Your task to perform on an android device: Open Yahoo.com Image 0: 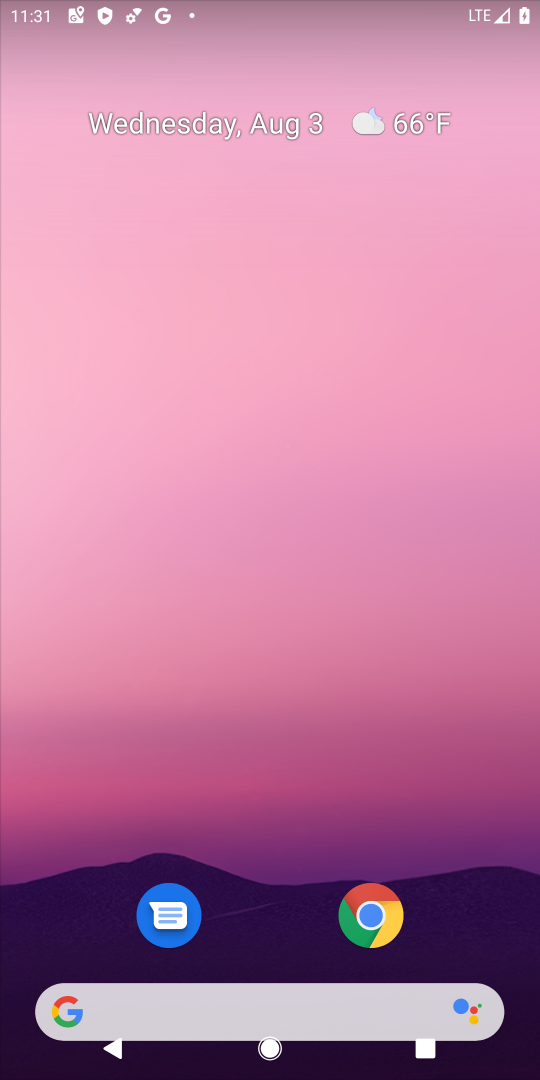
Step 0: press home button
Your task to perform on an android device: Open Yahoo.com Image 1: 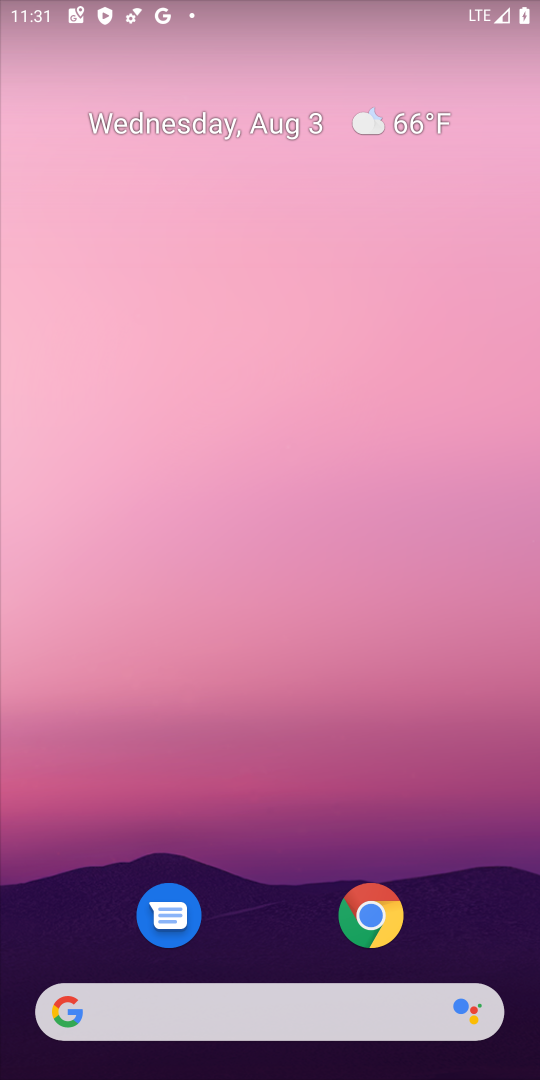
Step 1: click (395, 914)
Your task to perform on an android device: Open Yahoo.com Image 2: 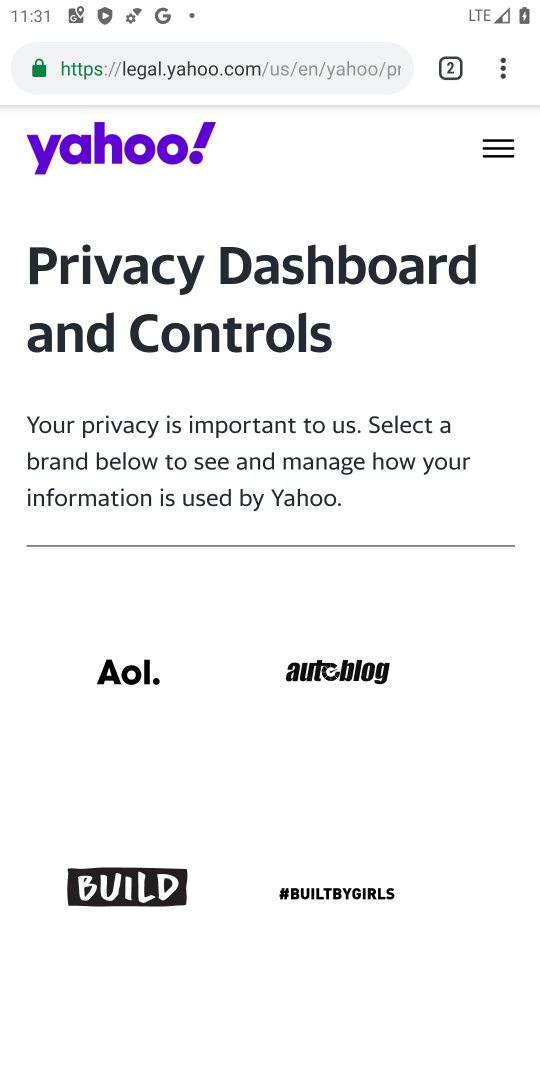
Step 2: click (301, 74)
Your task to perform on an android device: Open Yahoo.com Image 3: 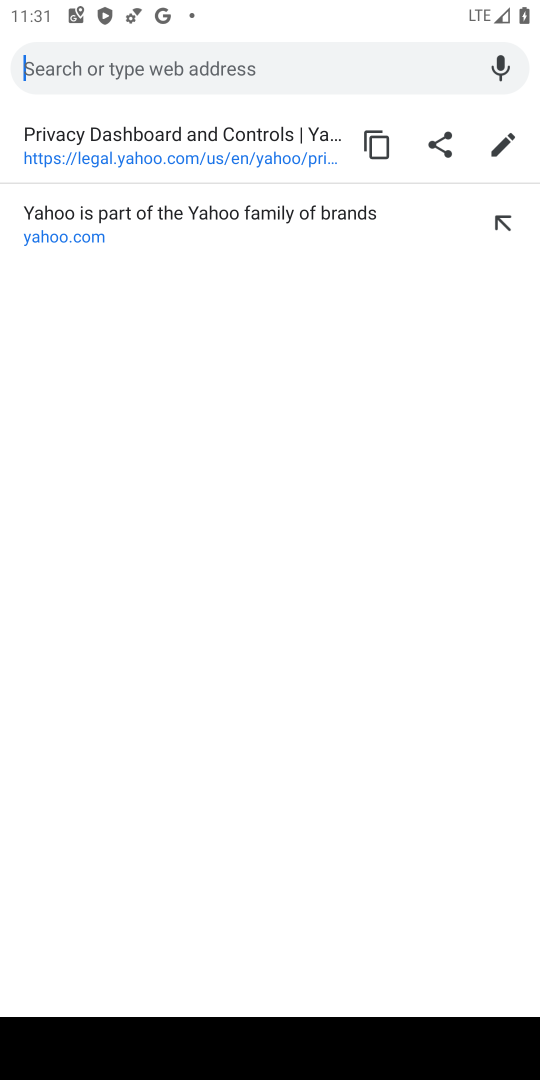
Step 3: type "Yahoo.com"
Your task to perform on an android device: Open Yahoo.com Image 4: 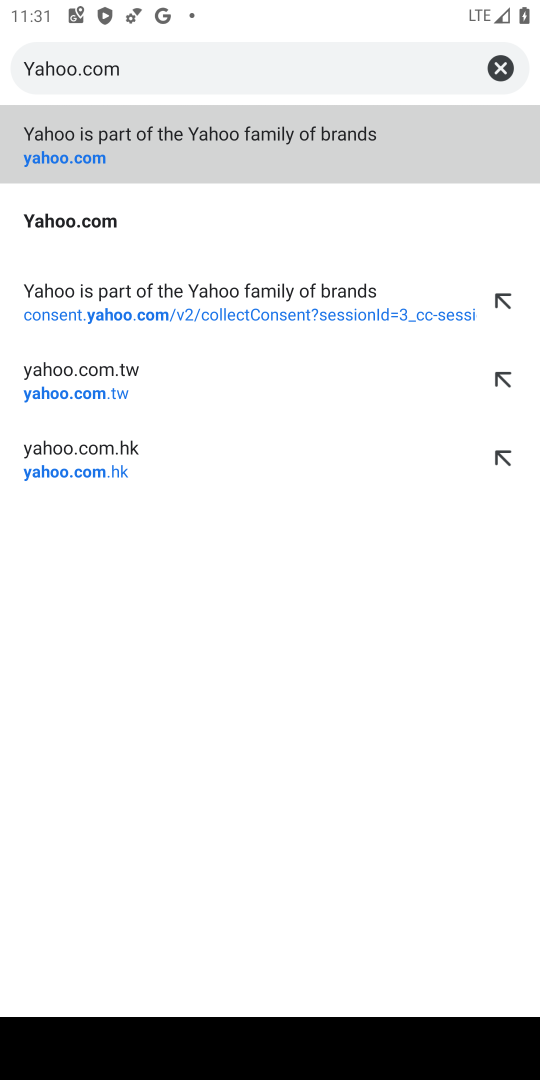
Step 4: click (98, 144)
Your task to perform on an android device: Open Yahoo.com Image 5: 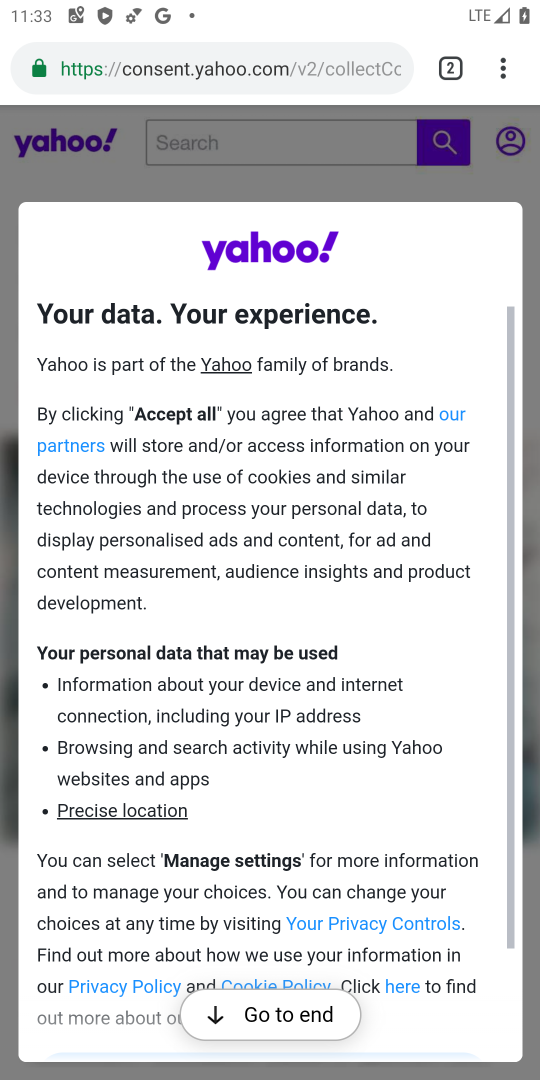
Step 5: task complete